Your task to perform on an android device: change keyboard looks Image 0: 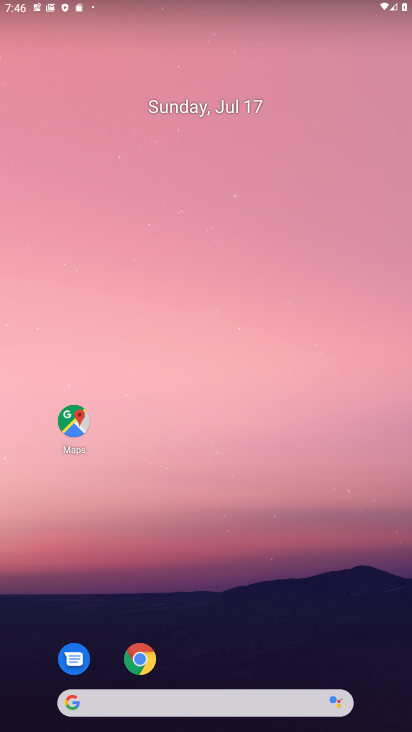
Step 0: drag from (200, 661) to (200, 322)
Your task to perform on an android device: change keyboard looks Image 1: 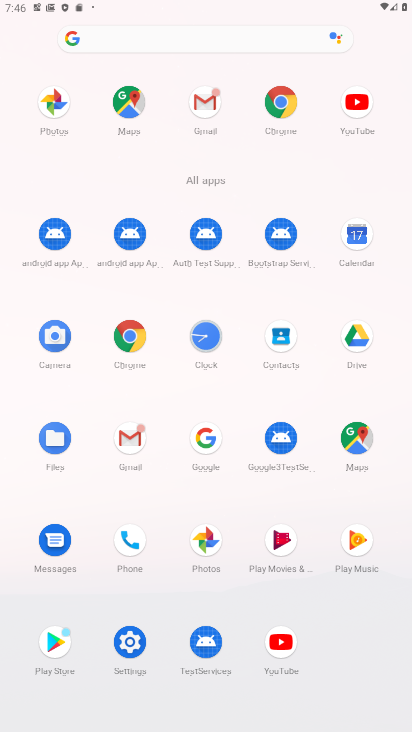
Step 1: click (125, 656)
Your task to perform on an android device: change keyboard looks Image 2: 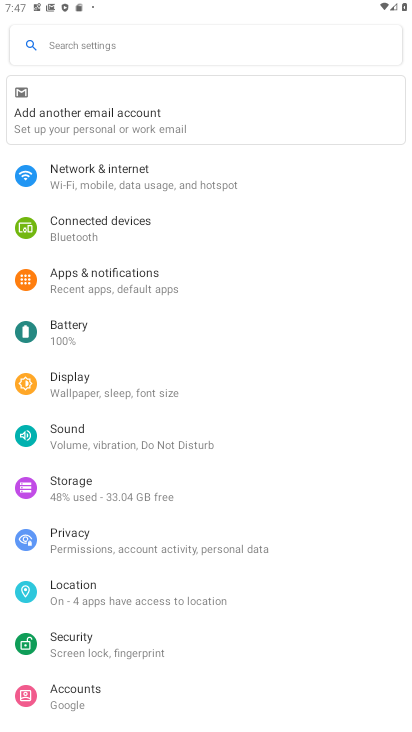
Step 2: drag from (140, 669) to (156, 368)
Your task to perform on an android device: change keyboard looks Image 3: 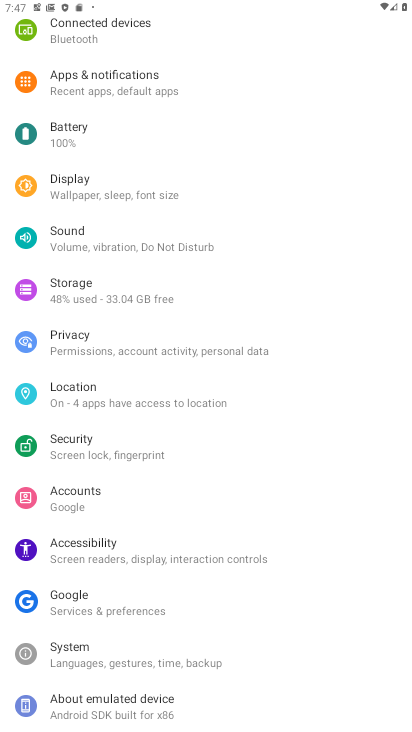
Step 3: click (159, 663)
Your task to perform on an android device: change keyboard looks Image 4: 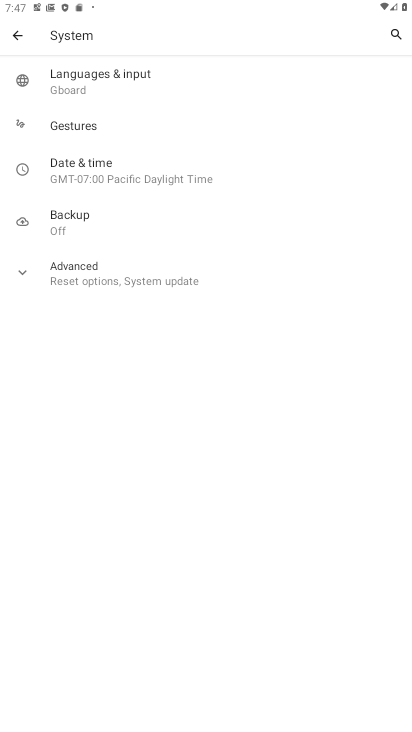
Step 4: click (98, 90)
Your task to perform on an android device: change keyboard looks Image 5: 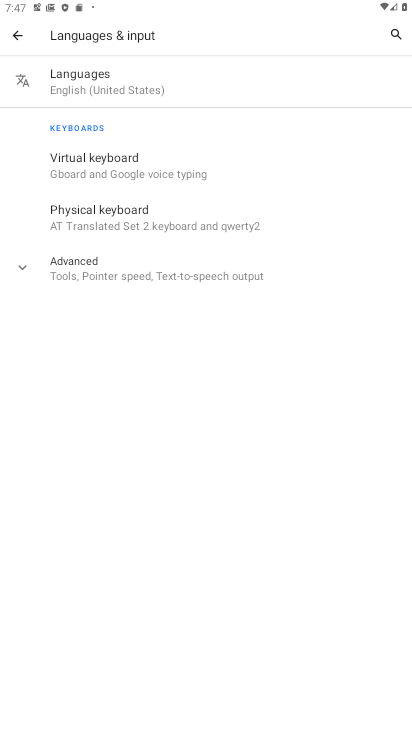
Step 5: click (160, 166)
Your task to perform on an android device: change keyboard looks Image 6: 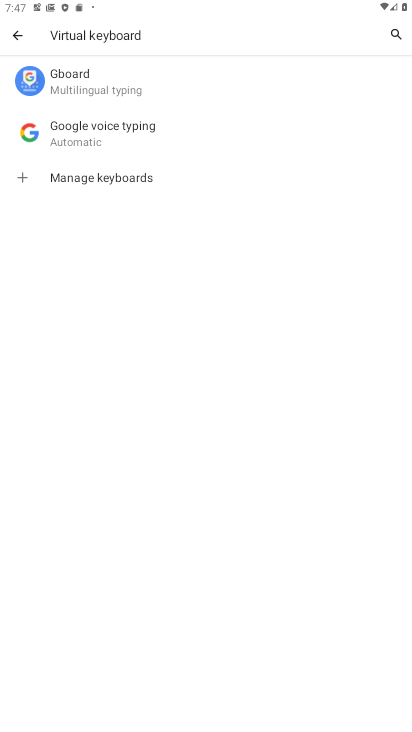
Step 6: click (99, 91)
Your task to perform on an android device: change keyboard looks Image 7: 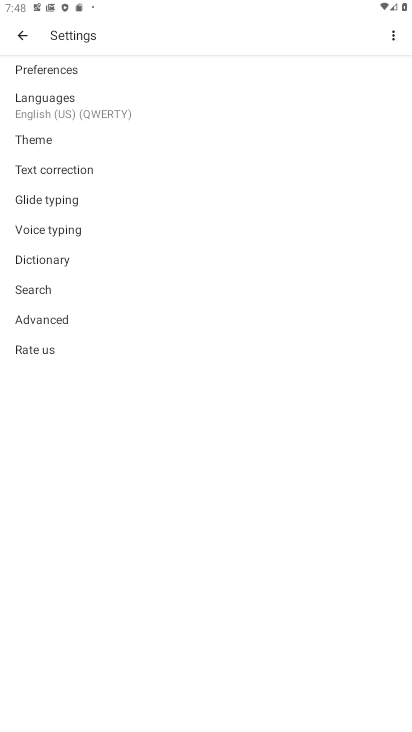
Step 7: click (48, 144)
Your task to perform on an android device: change keyboard looks Image 8: 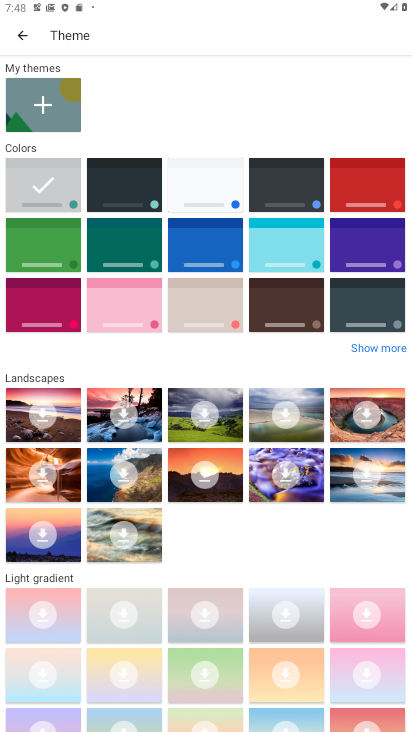
Step 8: click (276, 185)
Your task to perform on an android device: change keyboard looks Image 9: 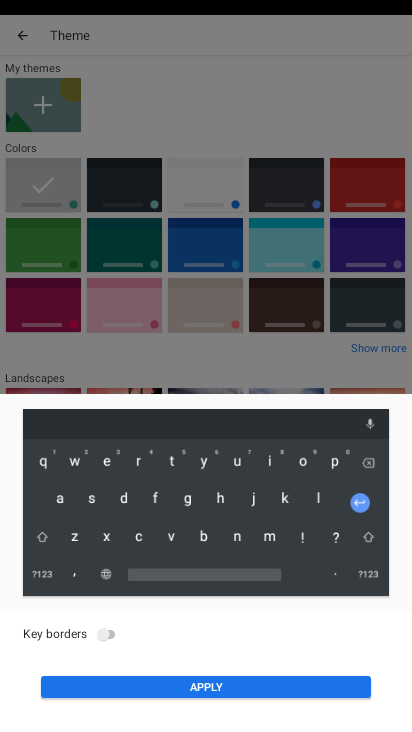
Step 9: click (258, 689)
Your task to perform on an android device: change keyboard looks Image 10: 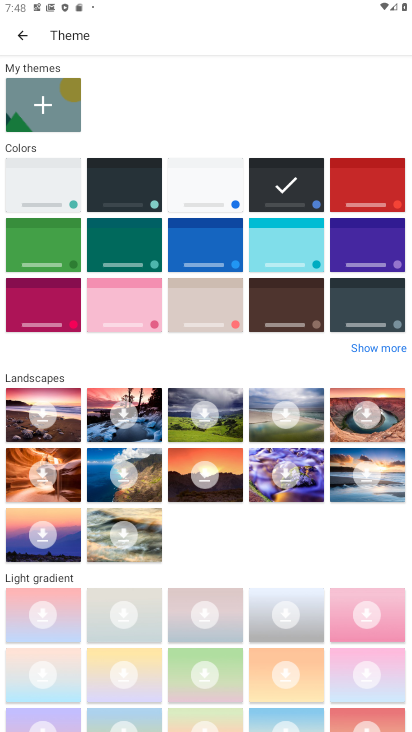
Step 10: task complete